Your task to perform on an android device: make emails show in primary in the gmail app Image 0: 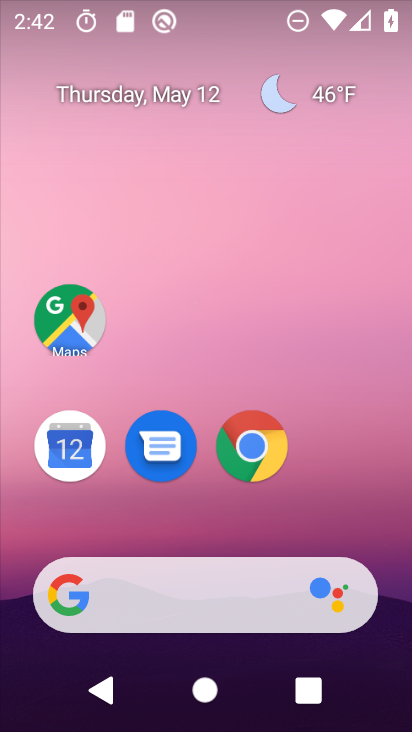
Step 0: drag from (207, 519) to (185, 143)
Your task to perform on an android device: make emails show in primary in the gmail app Image 1: 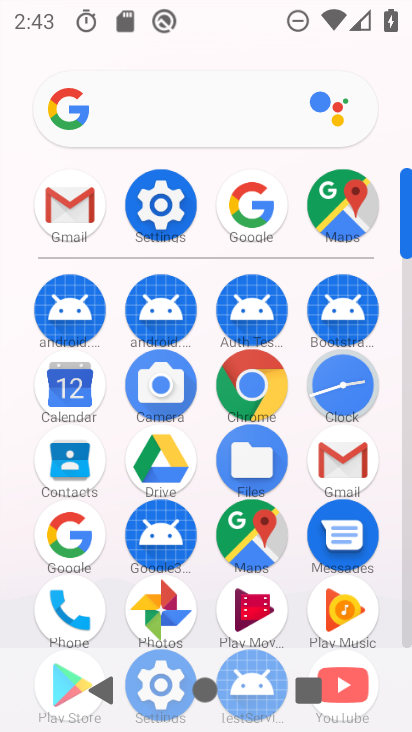
Step 1: click (88, 203)
Your task to perform on an android device: make emails show in primary in the gmail app Image 2: 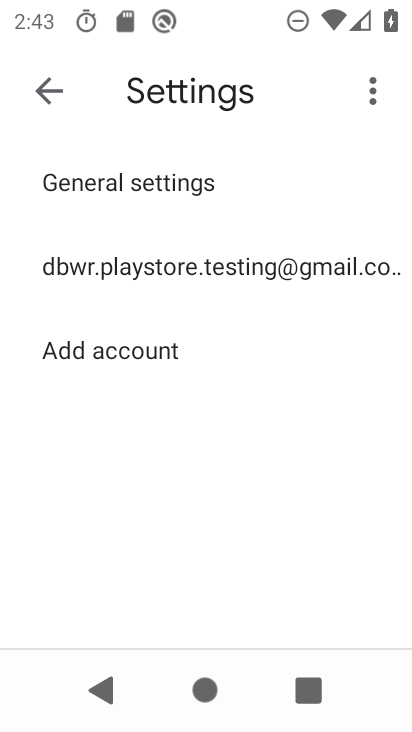
Step 2: click (174, 259)
Your task to perform on an android device: make emails show in primary in the gmail app Image 3: 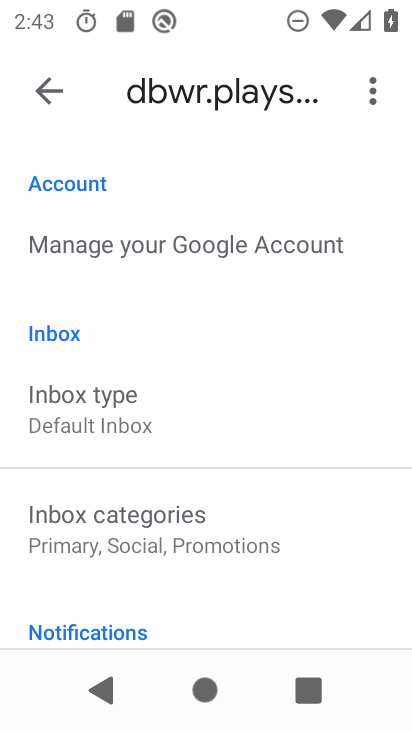
Step 3: click (145, 501)
Your task to perform on an android device: make emails show in primary in the gmail app Image 4: 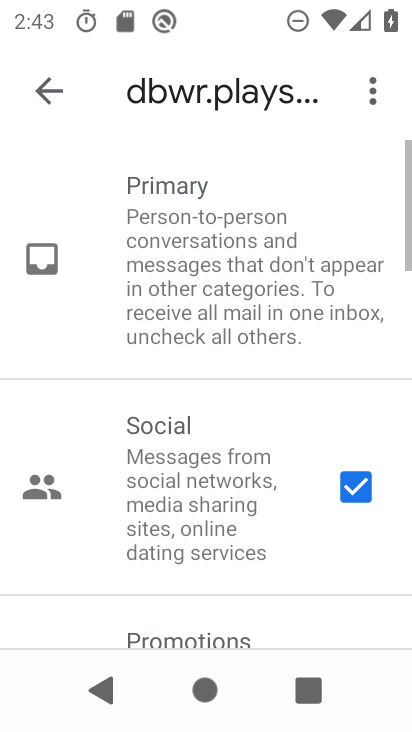
Step 4: click (155, 292)
Your task to perform on an android device: make emails show in primary in the gmail app Image 5: 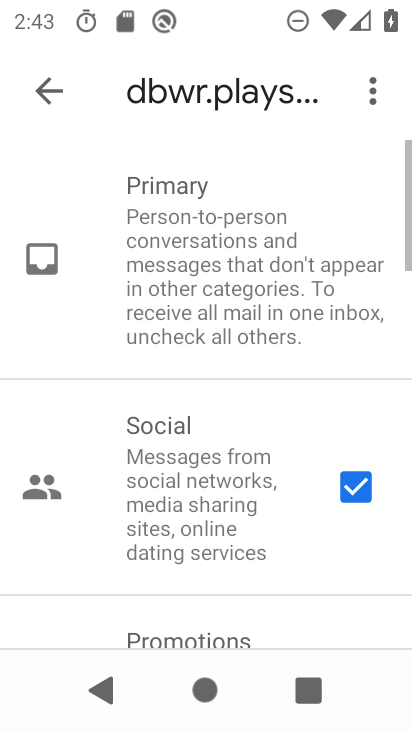
Step 5: task complete